Your task to perform on an android device: Go to CNN.com Image 0: 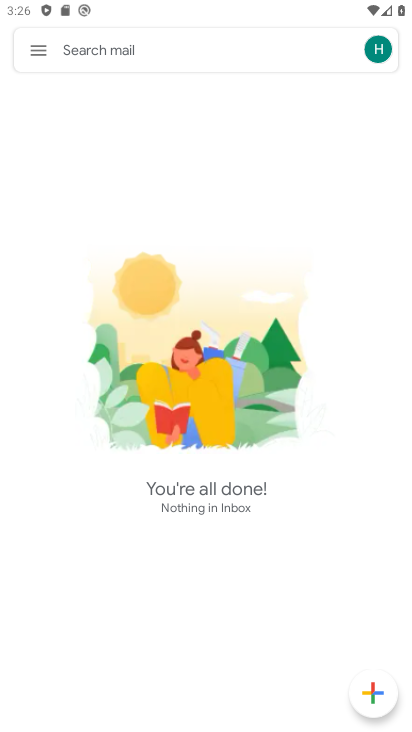
Step 0: drag from (315, 714) to (290, 224)
Your task to perform on an android device: Go to CNN.com Image 1: 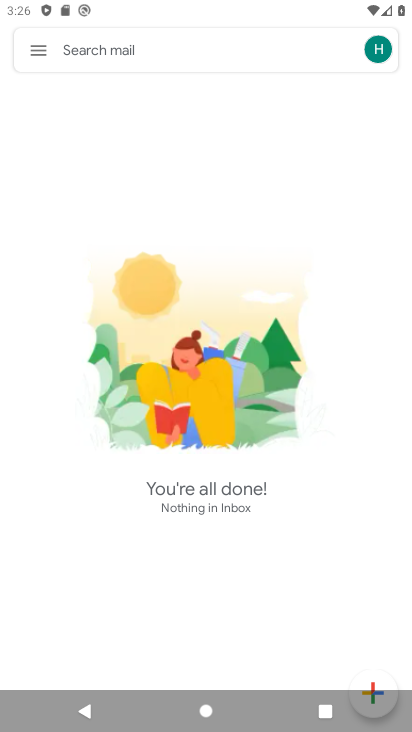
Step 1: press back button
Your task to perform on an android device: Go to CNN.com Image 2: 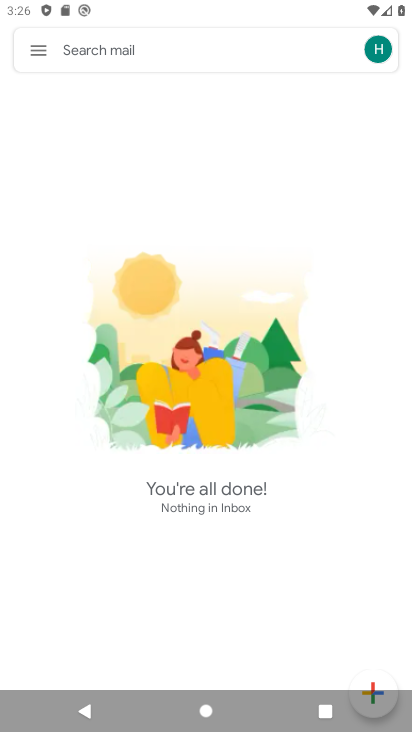
Step 2: press back button
Your task to perform on an android device: Go to CNN.com Image 3: 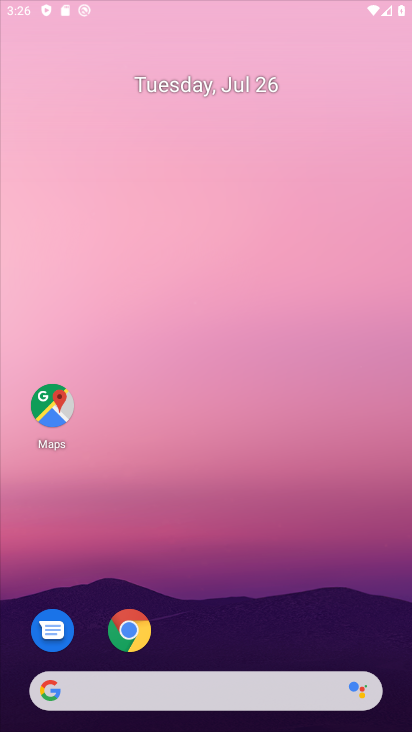
Step 3: press back button
Your task to perform on an android device: Go to CNN.com Image 4: 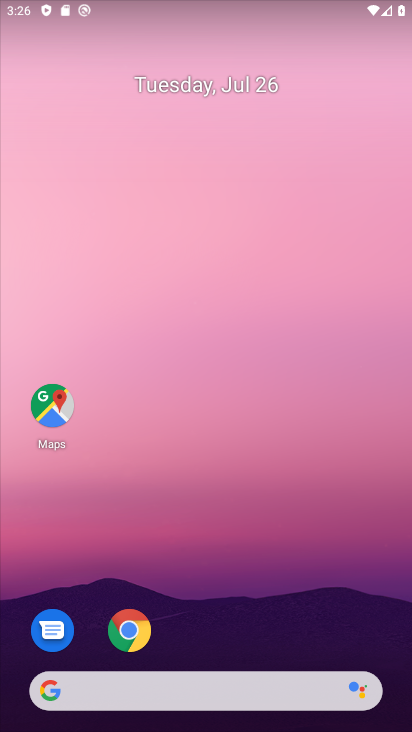
Step 4: click (127, 21)
Your task to perform on an android device: Go to CNN.com Image 5: 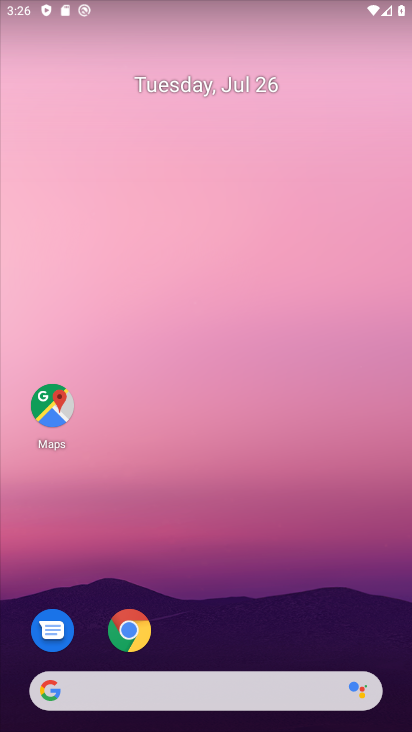
Step 5: drag from (221, 437) to (160, 74)
Your task to perform on an android device: Go to CNN.com Image 6: 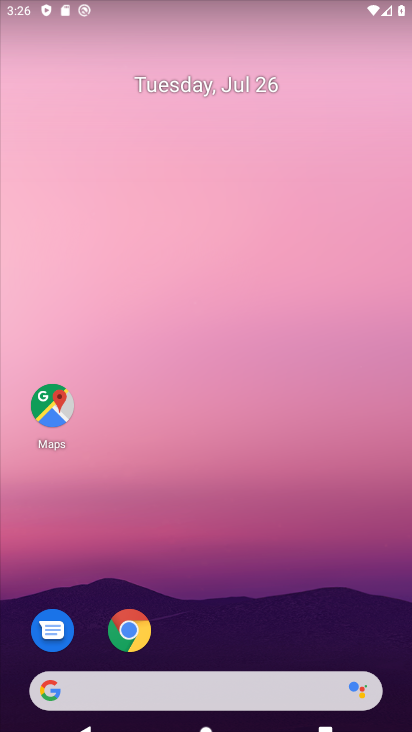
Step 6: drag from (198, 459) to (147, 82)
Your task to perform on an android device: Go to CNN.com Image 7: 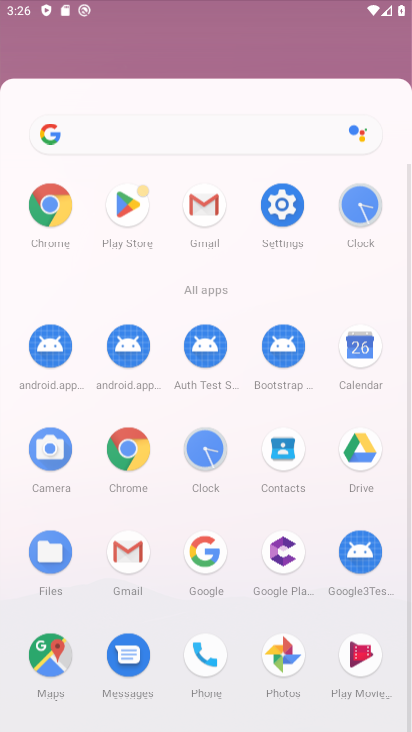
Step 7: drag from (222, 515) to (215, 90)
Your task to perform on an android device: Go to CNN.com Image 8: 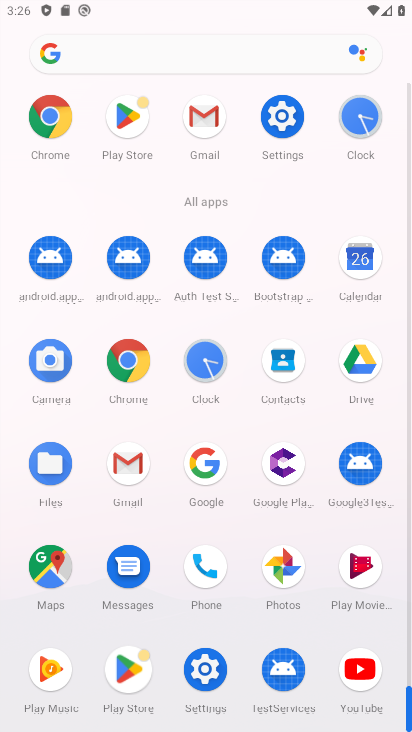
Step 8: click (54, 115)
Your task to perform on an android device: Go to CNN.com Image 9: 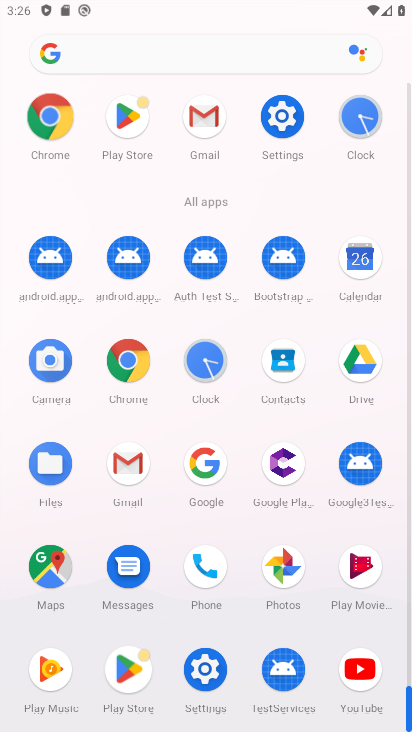
Step 9: click (54, 115)
Your task to perform on an android device: Go to CNN.com Image 10: 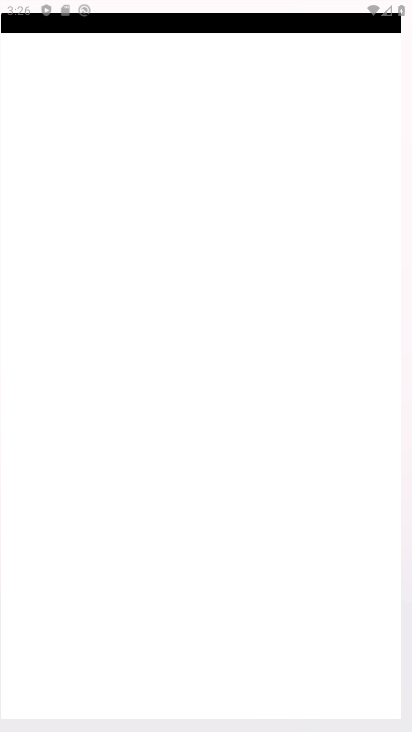
Step 10: click (54, 115)
Your task to perform on an android device: Go to CNN.com Image 11: 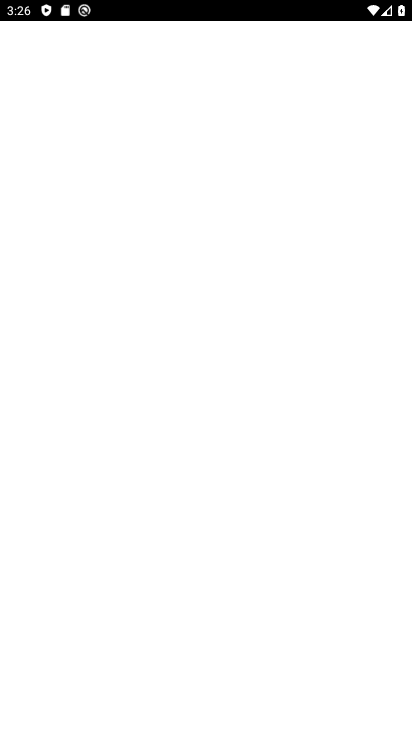
Step 11: click (54, 115)
Your task to perform on an android device: Go to CNN.com Image 12: 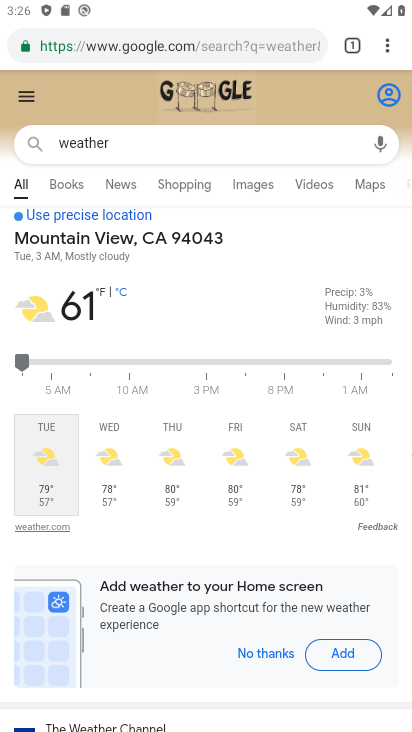
Step 12: click (101, 41)
Your task to perform on an android device: Go to CNN.com Image 13: 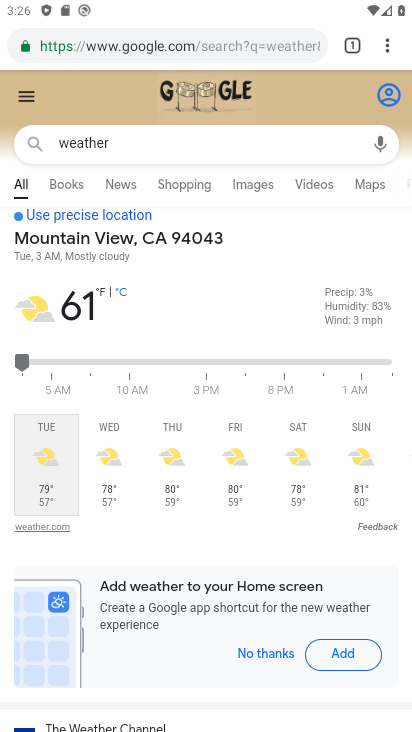
Step 13: click (101, 42)
Your task to perform on an android device: Go to CNN.com Image 14: 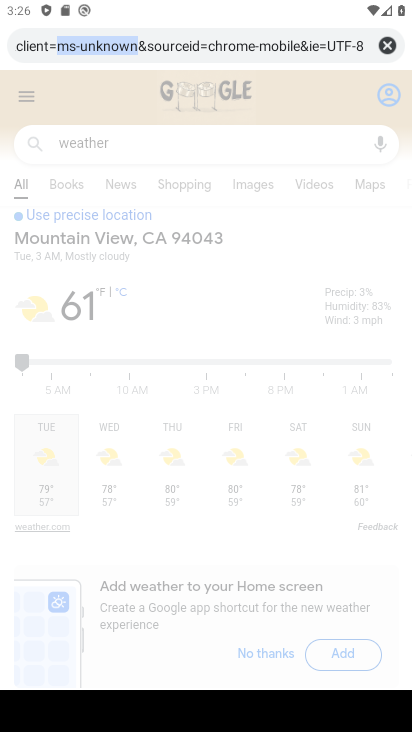
Step 14: click (103, 46)
Your task to perform on an android device: Go to CNN.com Image 15: 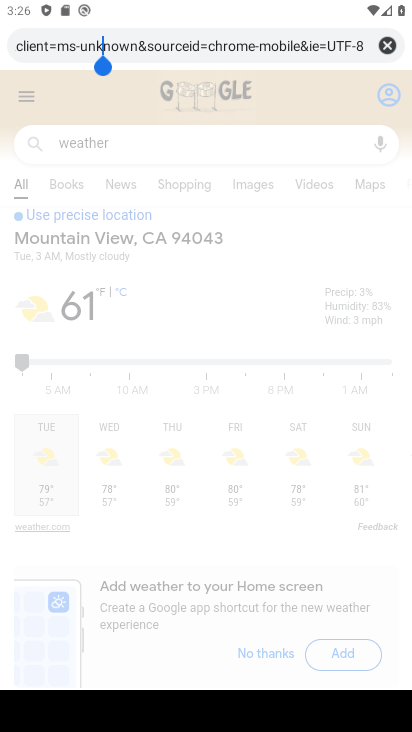
Step 15: click (104, 141)
Your task to perform on an android device: Go to CNN.com Image 16: 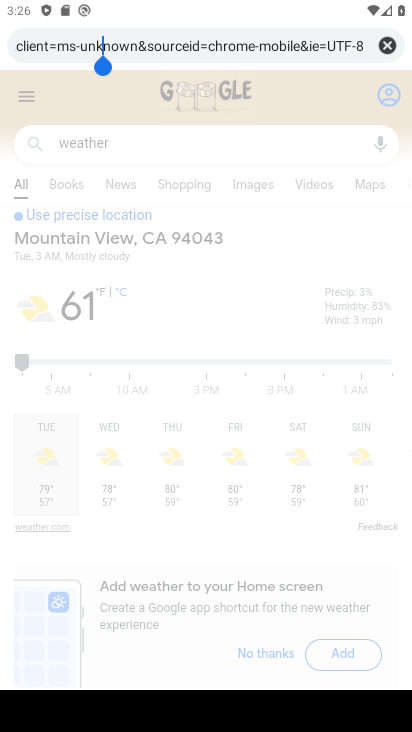
Step 16: click (107, 136)
Your task to perform on an android device: Go to CNN.com Image 17: 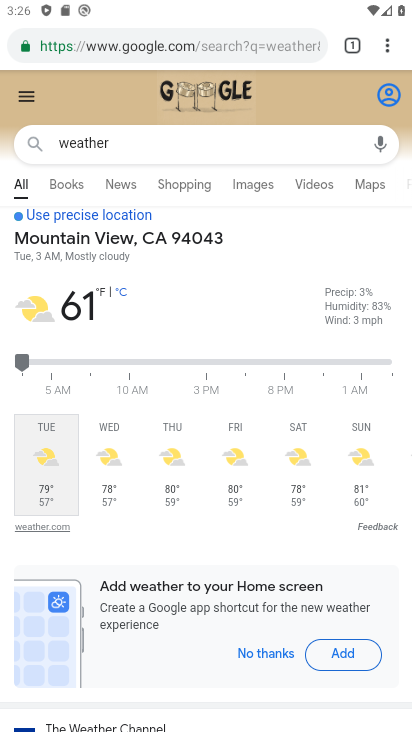
Step 17: click (128, 133)
Your task to perform on an android device: Go to CNN.com Image 18: 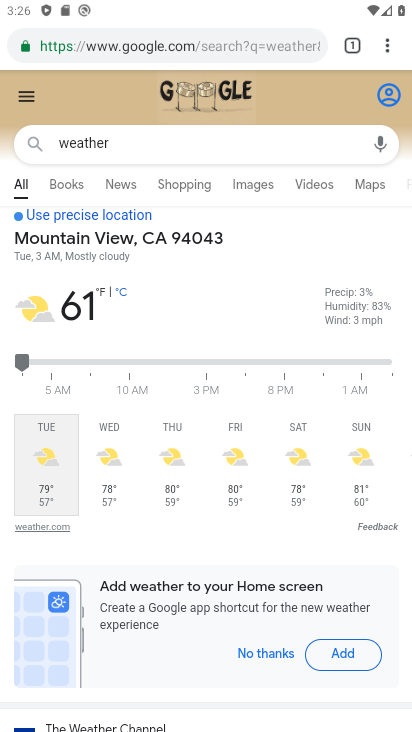
Step 18: click (386, 40)
Your task to perform on an android device: Go to CNN.com Image 19: 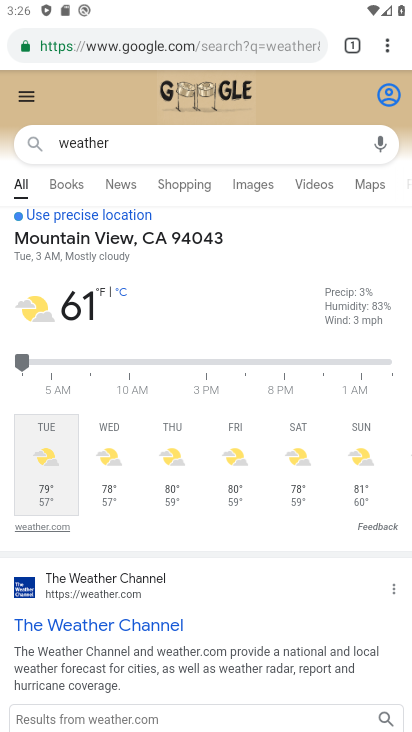
Step 19: drag from (388, 44) to (206, 91)
Your task to perform on an android device: Go to CNN.com Image 20: 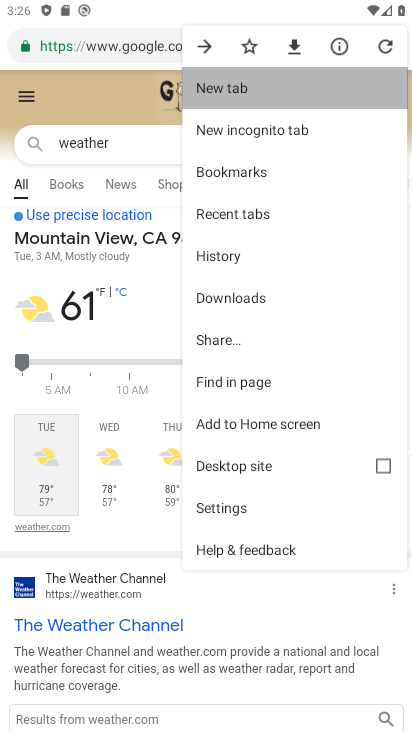
Step 20: click (217, 88)
Your task to perform on an android device: Go to CNN.com Image 21: 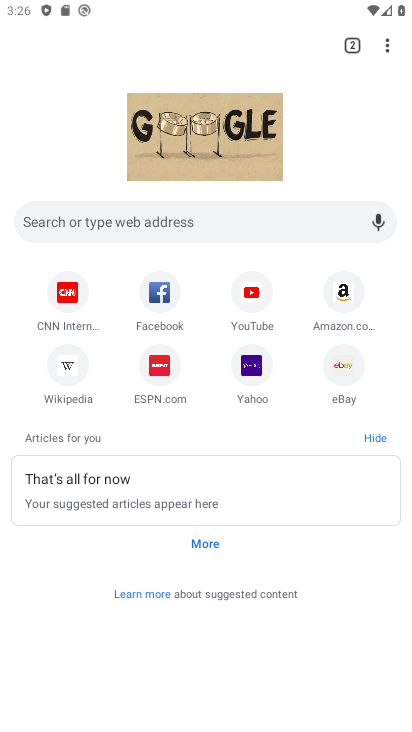
Step 21: click (47, 209)
Your task to perform on an android device: Go to CNN.com Image 22: 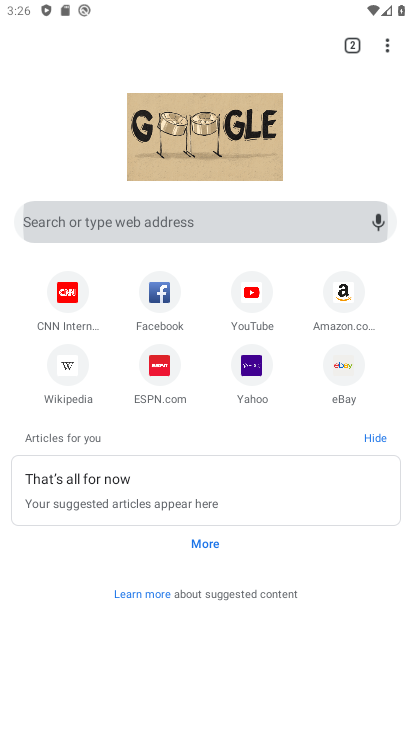
Step 22: click (56, 221)
Your task to perform on an android device: Go to CNN.com Image 23: 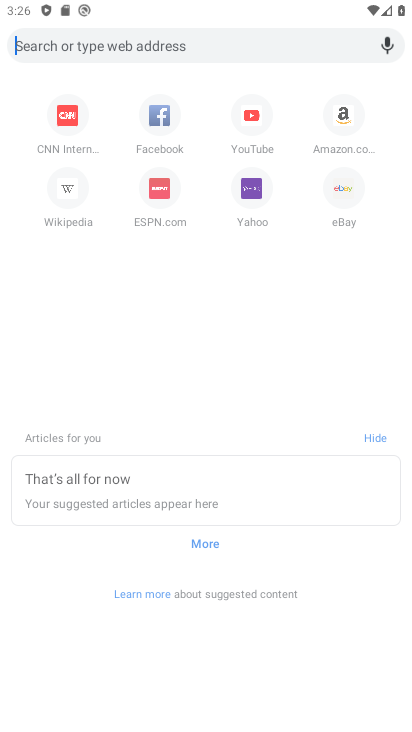
Step 23: click (58, 222)
Your task to perform on an android device: Go to CNN.com Image 24: 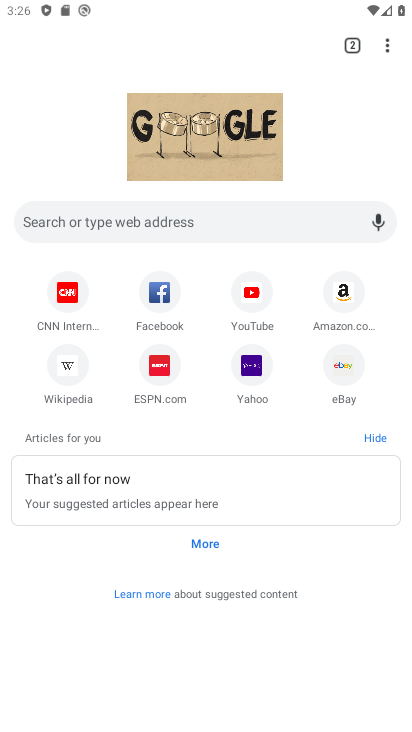
Step 24: click (82, 114)
Your task to perform on an android device: Go to CNN.com Image 25: 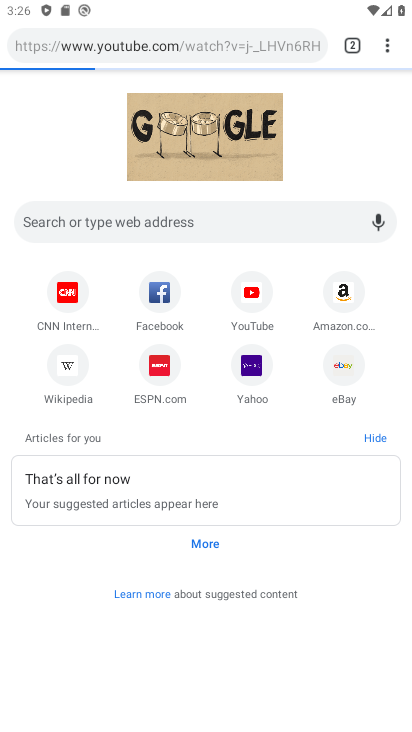
Step 25: click (67, 293)
Your task to perform on an android device: Go to CNN.com Image 26: 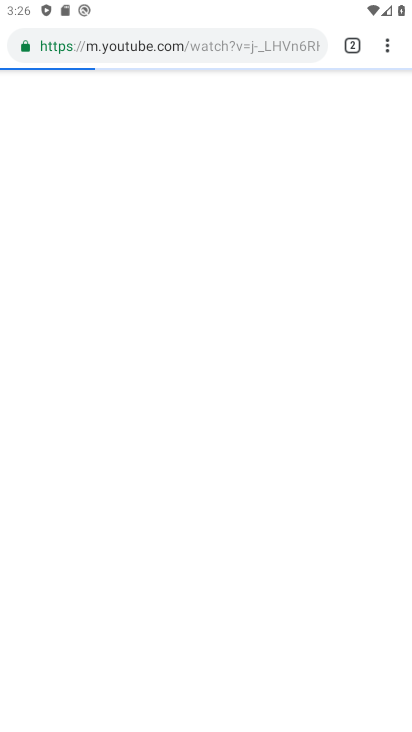
Step 26: click (67, 294)
Your task to perform on an android device: Go to CNN.com Image 27: 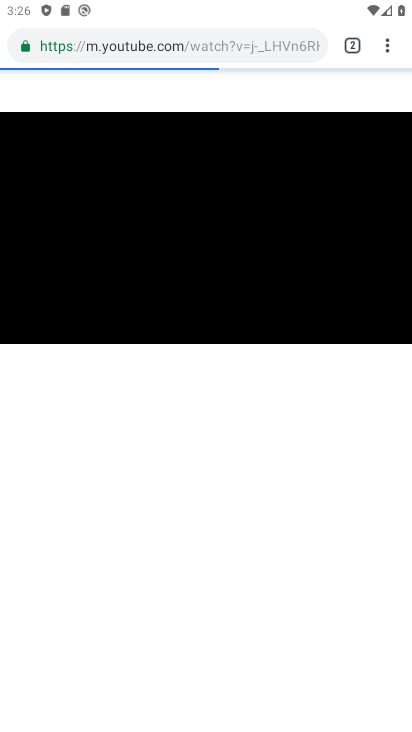
Step 27: click (69, 295)
Your task to perform on an android device: Go to CNN.com Image 28: 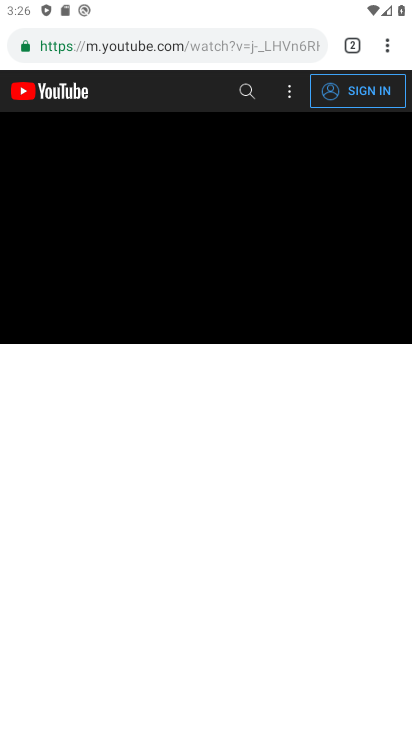
Step 28: task complete